Your task to perform on an android device: Turn off the flashlight Image 0: 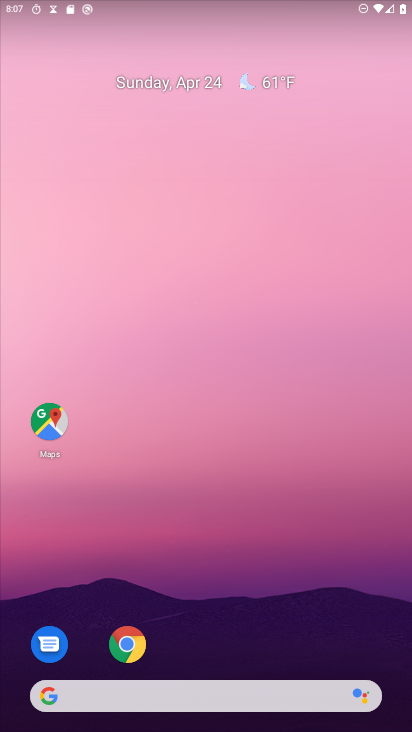
Step 0: drag from (205, 690) to (206, 32)
Your task to perform on an android device: Turn off the flashlight Image 1: 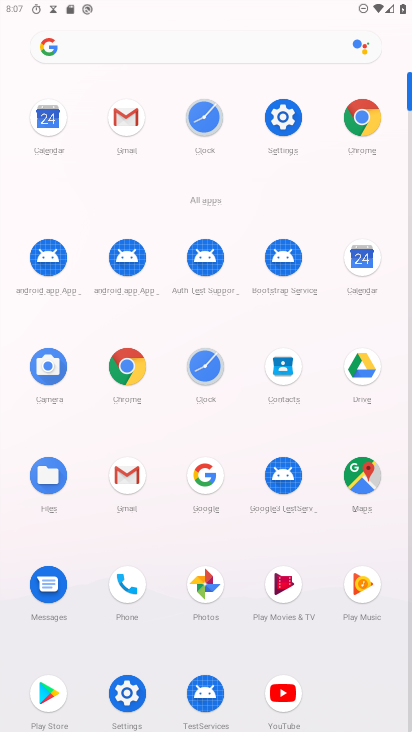
Step 1: task complete